Your task to perform on an android device: Open CNN.com Image 0: 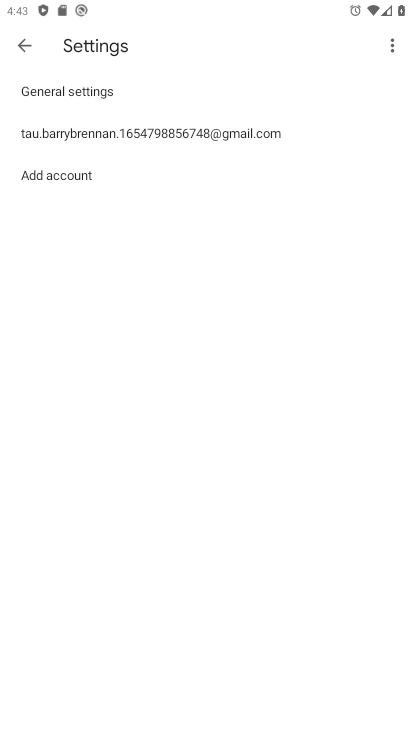
Step 0: click (6, 40)
Your task to perform on an android device: Open CNN.com Image 1: 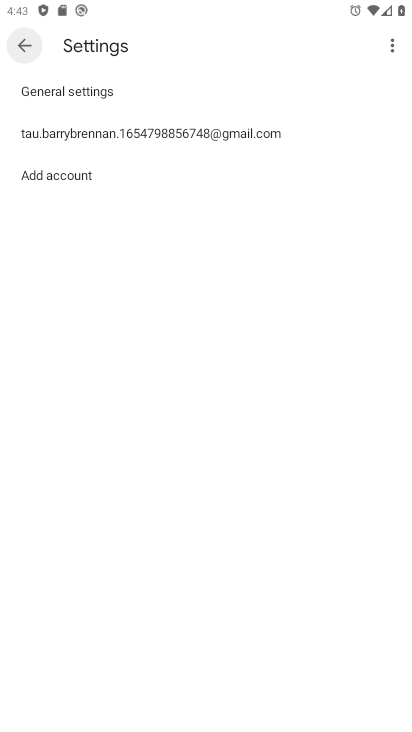
Step 1: click (18, 41)
Your task to perform on an android device: Open CNN.com Image 2: 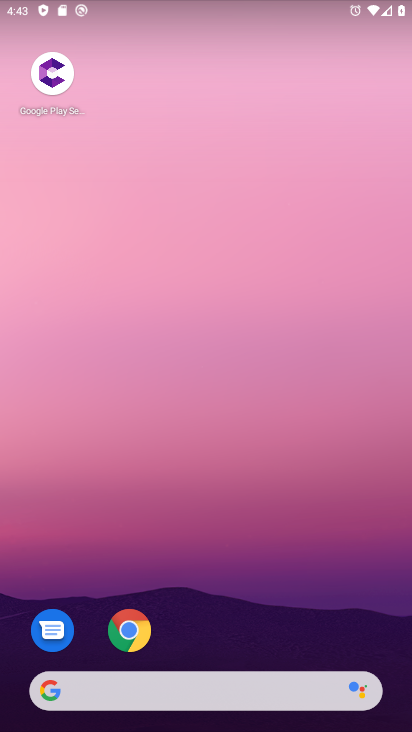
Step 2: drag from (248, 537) to (133, 82)
Your task to perform on an android device: Open CNN.com Image 3: 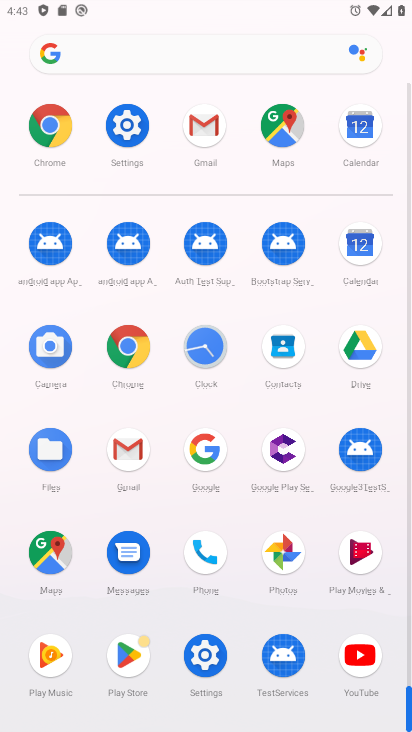
Step 3: click (114, 60)
Your task to perform on an android device: Open CNN.com Image 4: 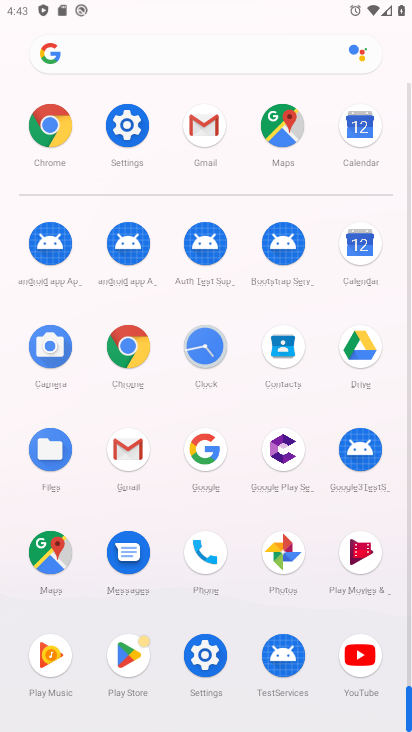
Step 4: click (116, 60)
Your task to perform on an android device: Open CNN.com Image 5: 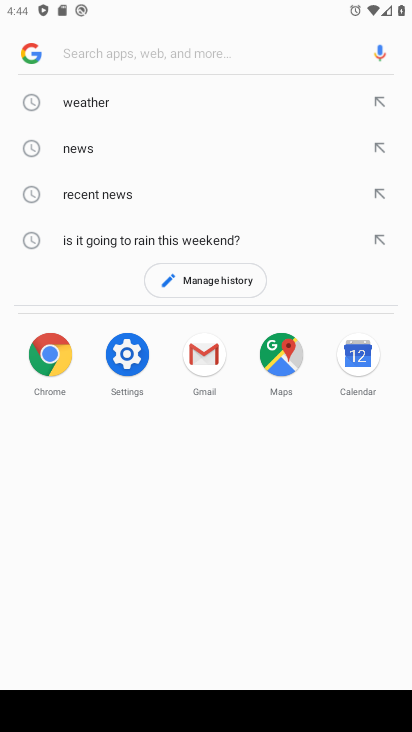
Step 5: type "CNN.com"
Your task to perform on an android device: Open CNN.com Image 6: 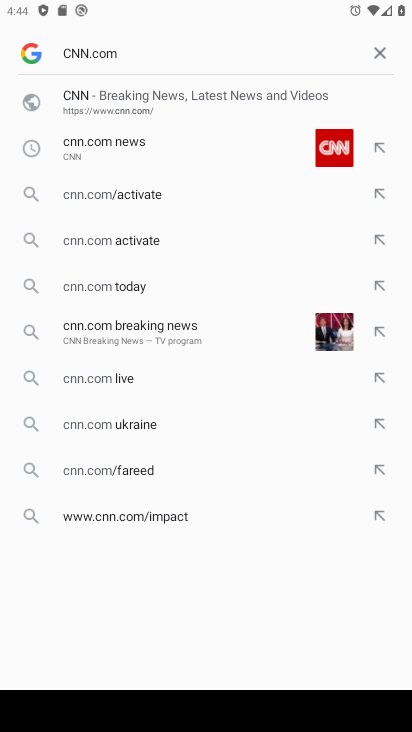
Step 6: click (112, 106)
Your task to perform on an android device: Open CNN.com Image 7: 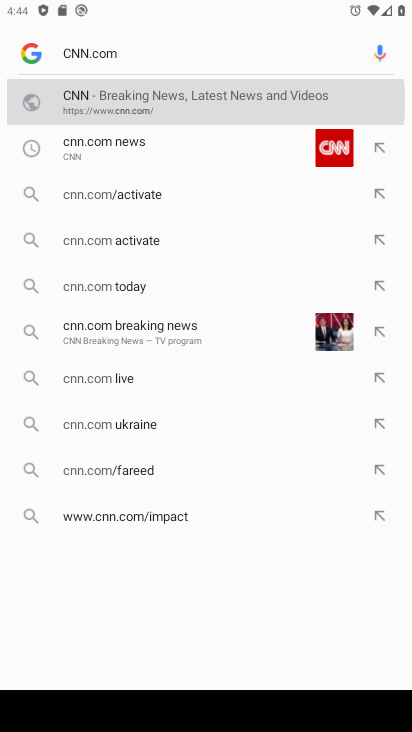
Step 7: click (112, 106)
Your task to perform on an android device: Open CNN.com Image 8: 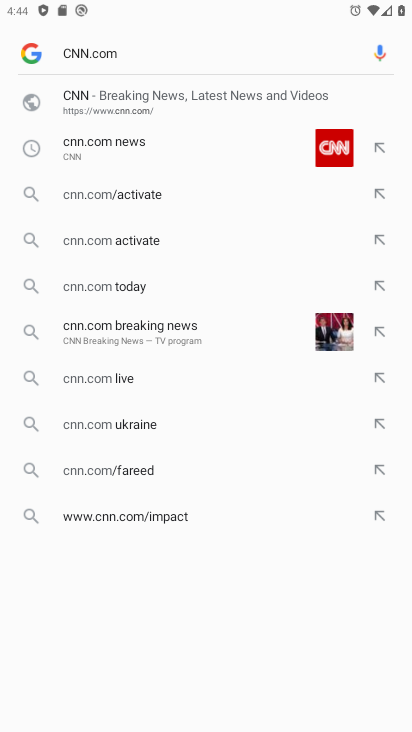
Step 8: click (119, 101)
Your task to perform on an android device: Open CNN.com Image 9: 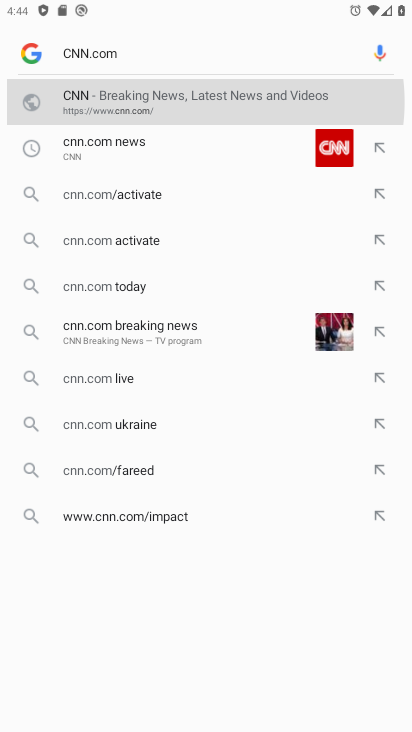
Step 9: click (119, 101)
Your task to perform on an android device: Open CNN.com Image 10: 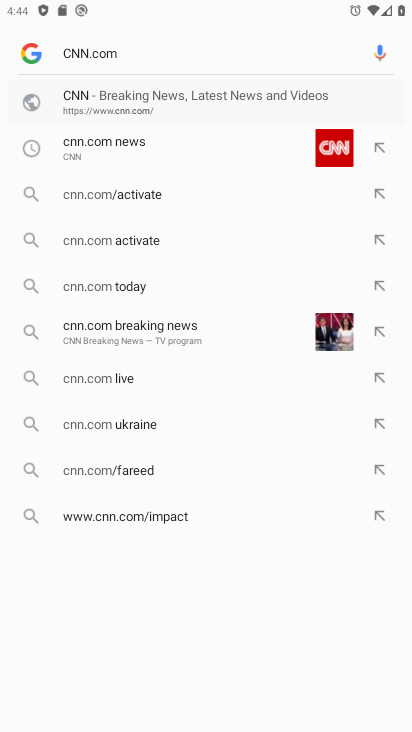
Step 10: click (119, 101)
Your task to perform on an android device: Open CNN.com Image 11: 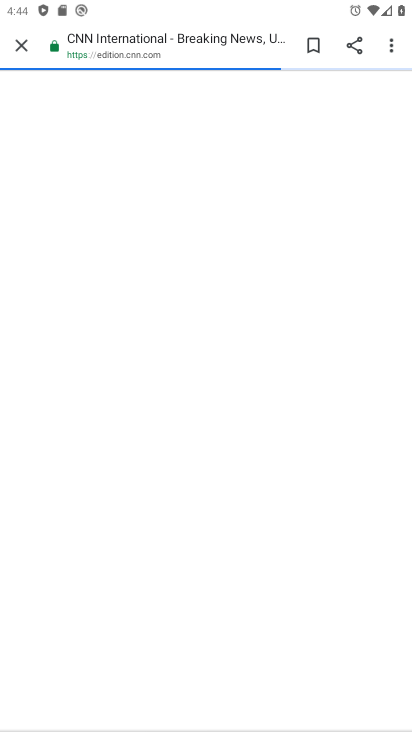
Step 11: task complete